Your task to perform on an android device: check the backup settings in the google photos Image 0: 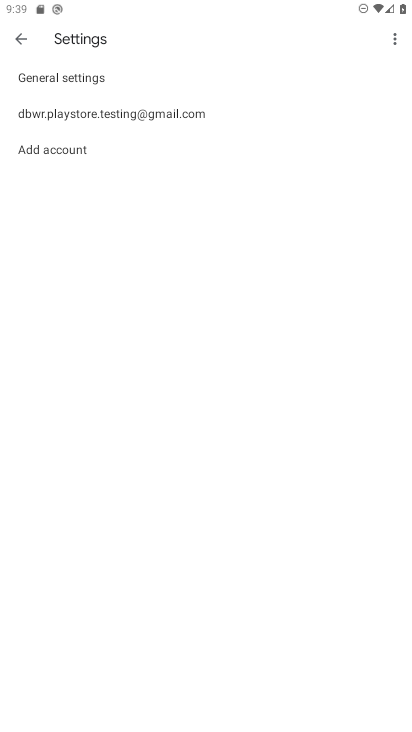
Step 0: press home button
Your task to perform on an android device: check the backup settings in the google photos Image 1: 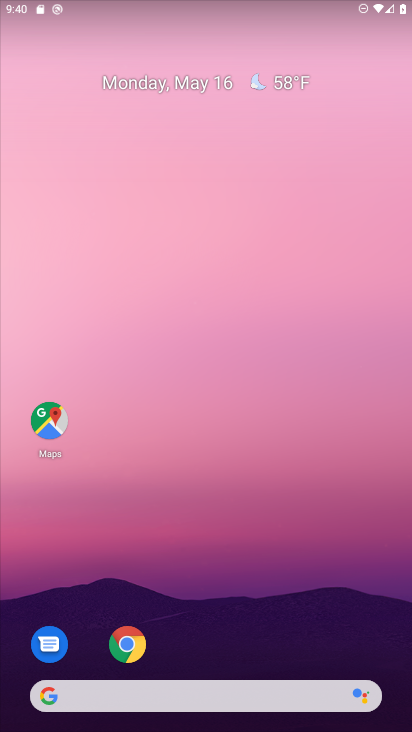
Step 1: drag from (220, 702) to (239, 291)
Your task to perform on an android device: check the backup settings in the google photos Image 2: 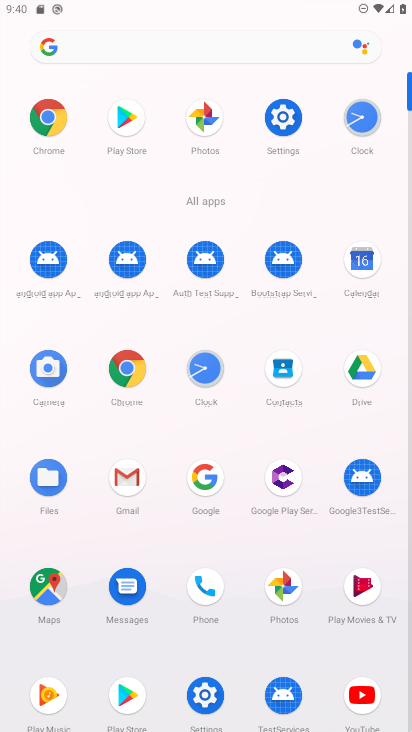
Step 2: click (288, 596)
Your task to perform on an android device: check the backup settings in the google photos Image 3: 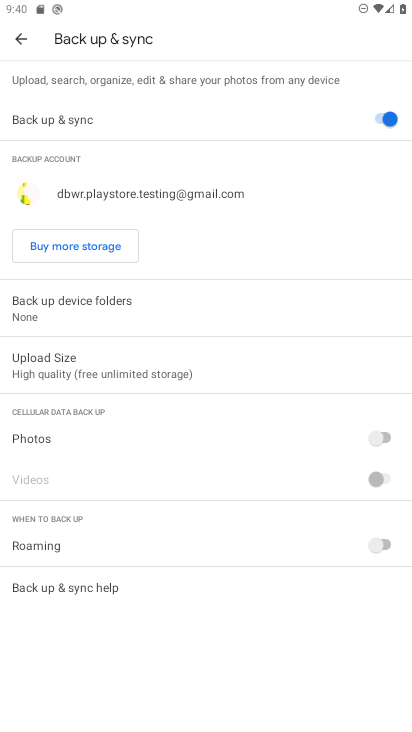
Step 3: task complete